Your task to perform on an android device: set default search engine in the chrome app Image 0: 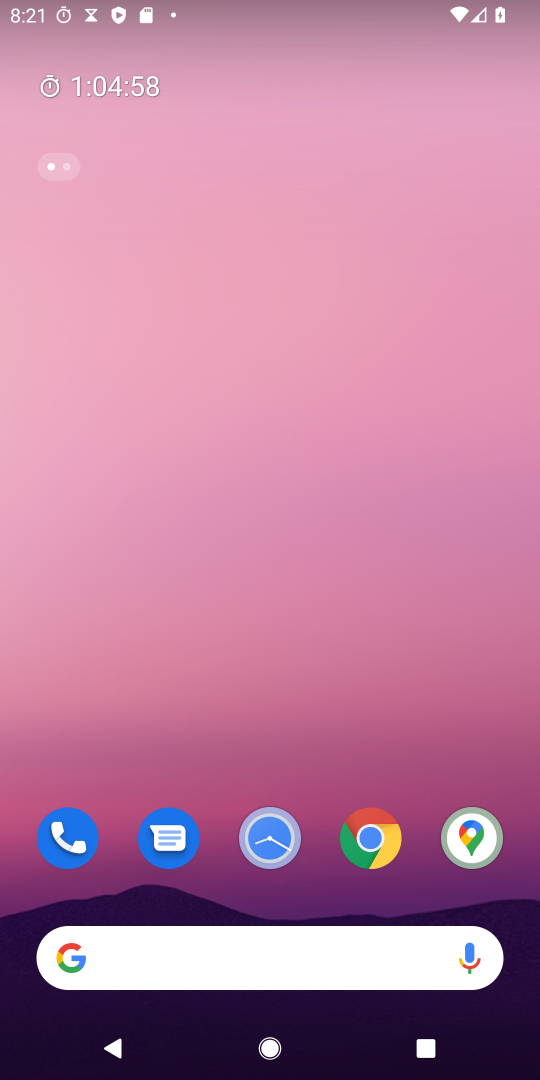
Step 0: drag from (334, 953) to (188, 73)
Your task to perform on an android device: set default search engine in the chrome app Image 1: 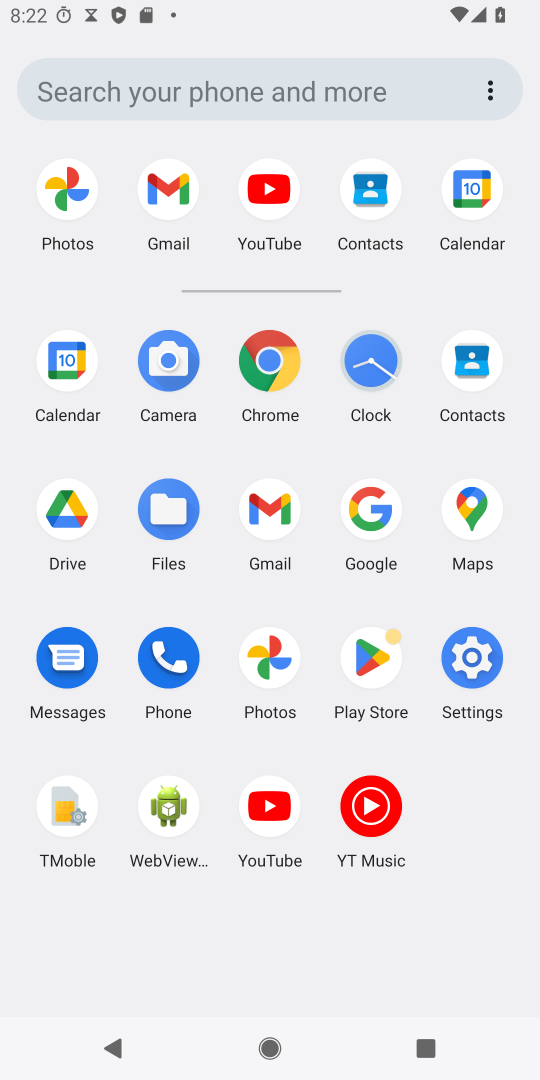
Step 1: click (264, 371)
Your task to perform on an android device: set default search engine in the chrome app Image 2: 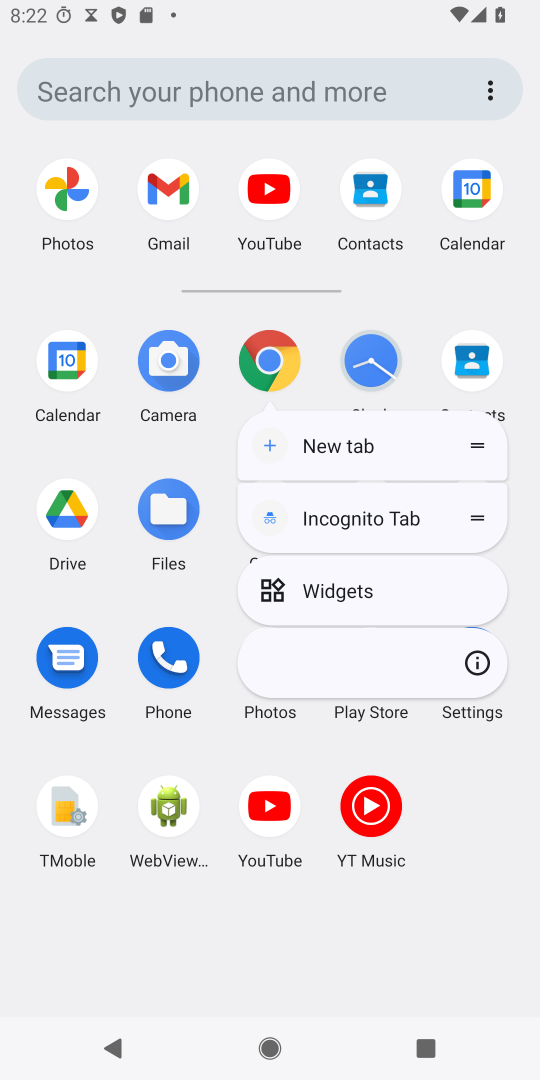
Step 2: click (264, 371)
Your task to perform on an android device: set default search engine in the chrome app Image 3: 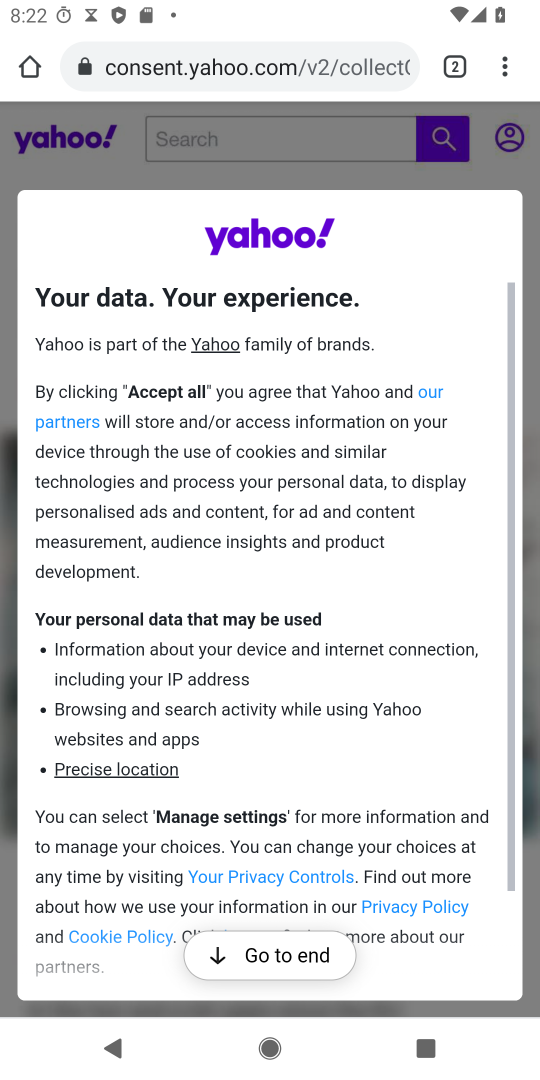
Step 3: drag from (503, 50) to (338, 835)
Your task to perform on an android device: set default search engine in the chrome app Image 4: 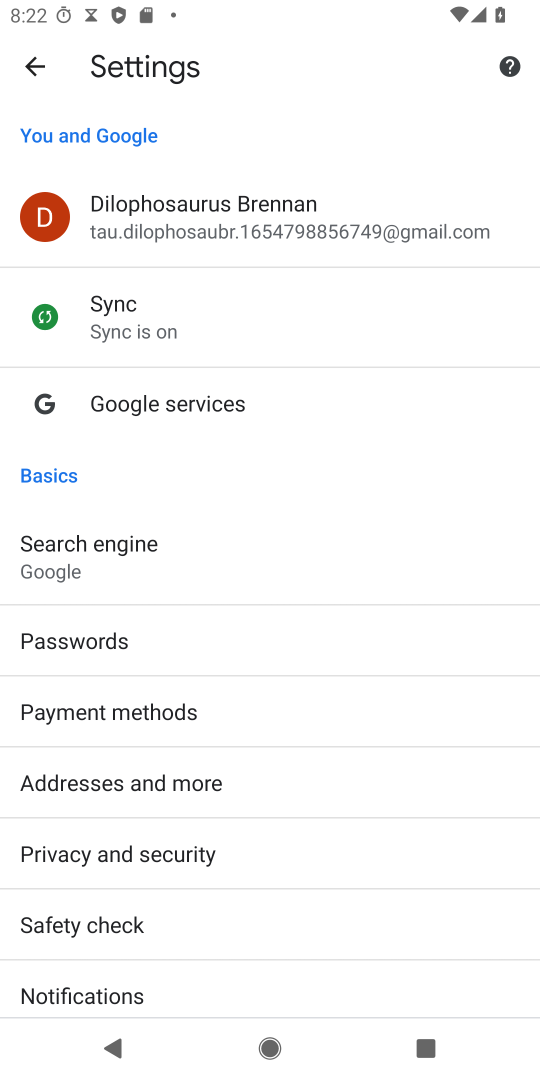
Step 4: click (115, 557)
Your task to perform on an android device: set default search engine in the chrome app Image 5: 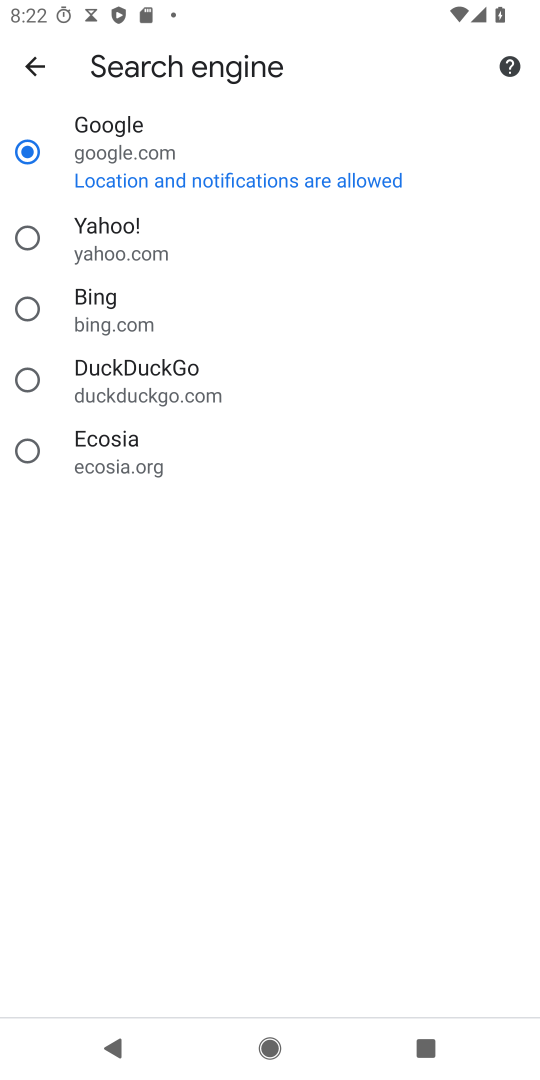
Step 5: task complete